Your task to perform on an android device: turn on showing notifications on the lock screen Image 0: 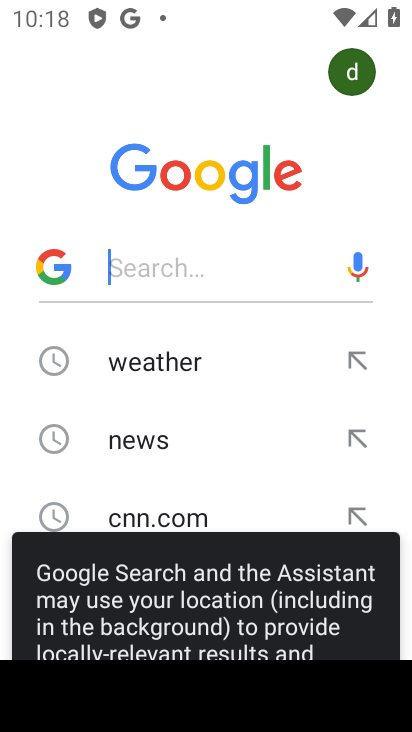
Step 0: press back button
Your task to perform on an android device: turn on showing notifications on the lock screen Image 1: 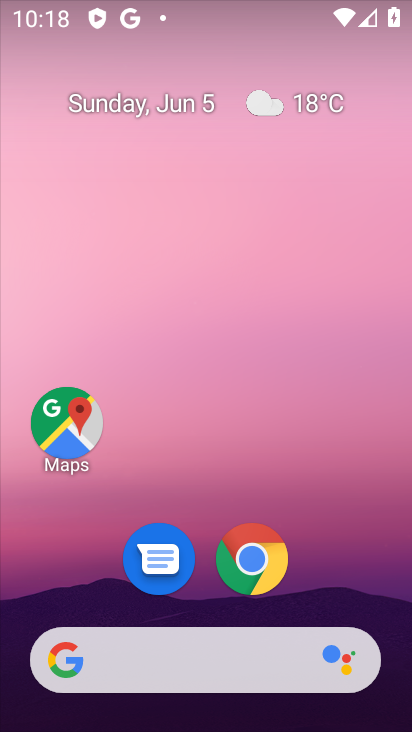
Step 1: drag from (392, 712) to (402, 135)
Your task to perform on an android device: turn on showing notifications on the lock screen Image 2: 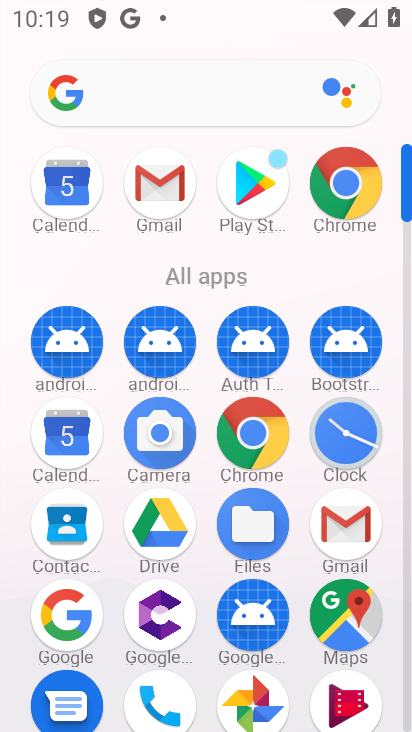
Step 2: drag from (206, 631) to (246, 251)
Your task to perform on an android device: turn on showing notifications on the lock screen Image 3: 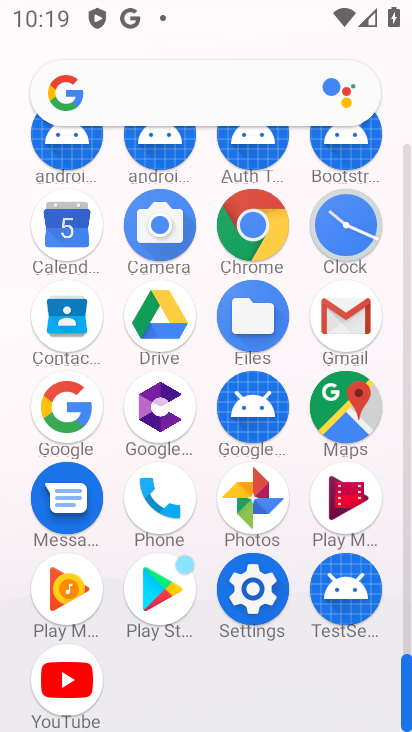
Step 3: click (254, 587)
Your task to perform on an android device: turn on showing notifications on the lock screen Image 4: 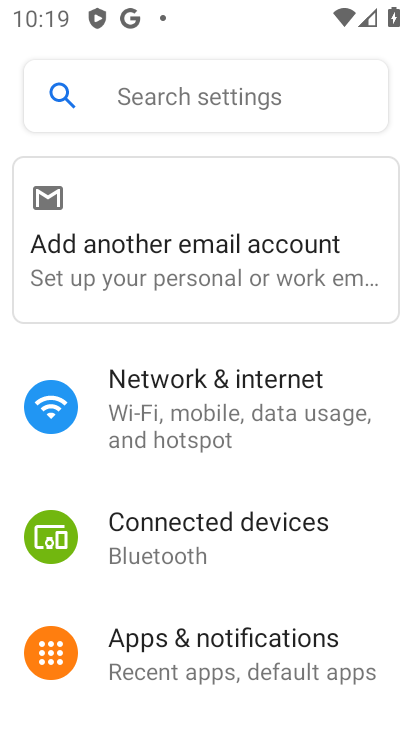
Step 4: drag from (256, 637) to (273, 323)
Your task to perform on an android device: turn on showing notifications on the lock screen Image 5: 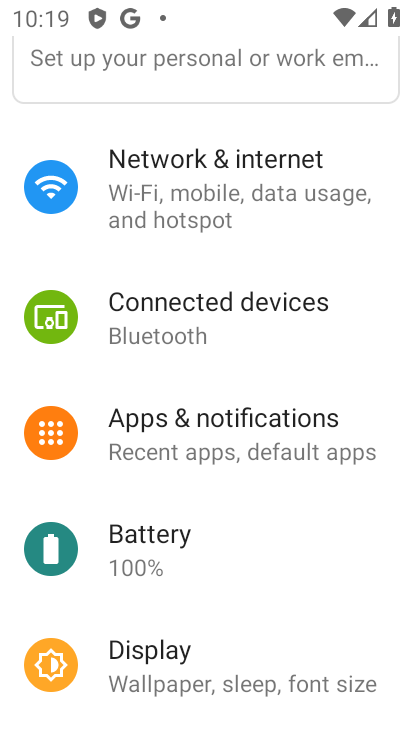
Step 5: click (217, 423)
Your task to perform on an android device: turn on showing notifications on the lock screen Image 6: 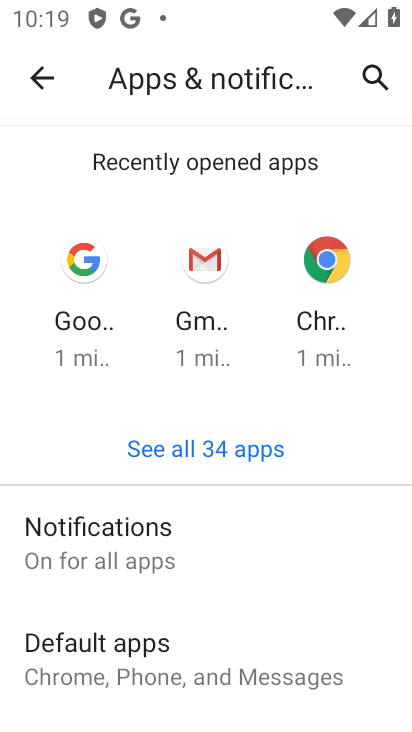
Step 6: drag from (254, 524) to (270, 268)
Your task to perform on an android device: turn on showing notifications on the lock screen Image 7: 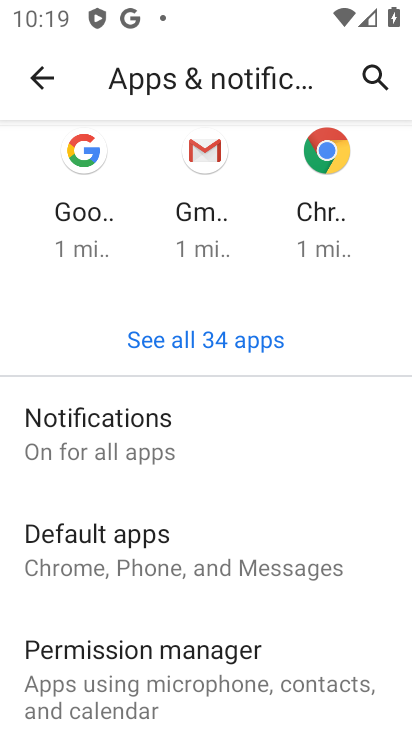
Step 7: click (108, 436)
Your task to perform on an android device: turn on showing notifications on the lock screen Image 8: 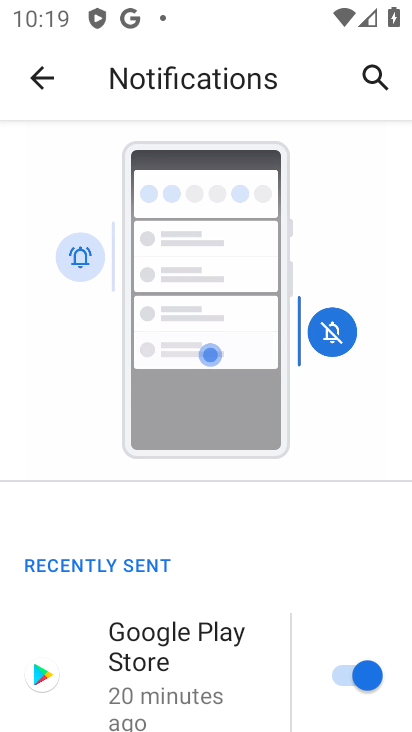
Step 8: drag from (242, 613) to (250, 227)
Your task to perform on an android device: turn on showing notifications on the lock screen Image 9: 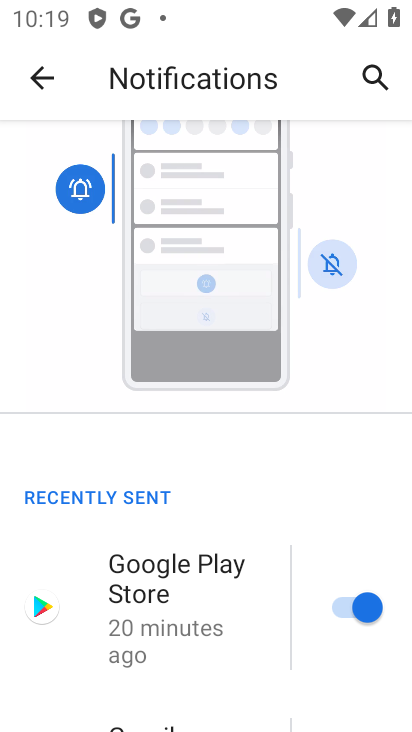
Step 9: drag from (264, 687) to (286, 176)
Your task to perform on an android device: turn on showing notifications on the lock screen Image 10: 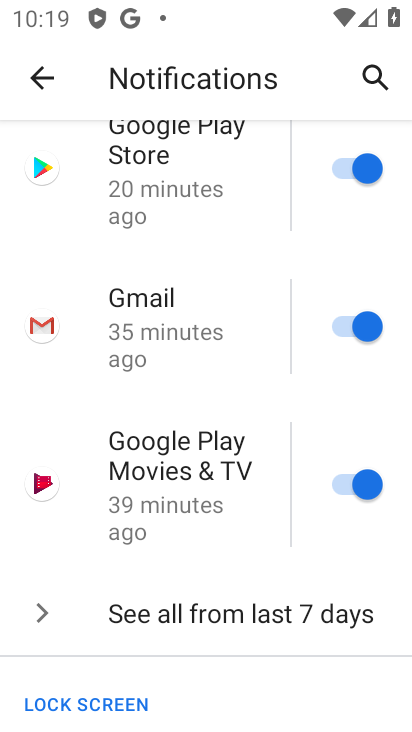
Step 10: drag from (245, 678) to (247, 305)
Your task to perform on an android device: turn on showing notifications on the lock screen Image 11: 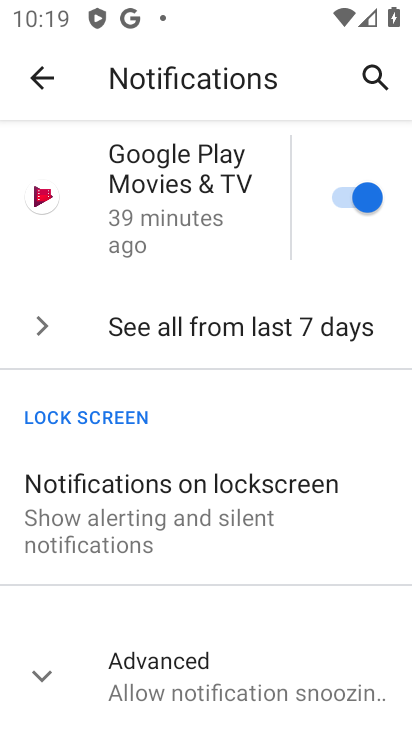
Step 11: click (147, 490)
Your task to perform on an android device: turn on showing notifications on the lock screen Image 12: 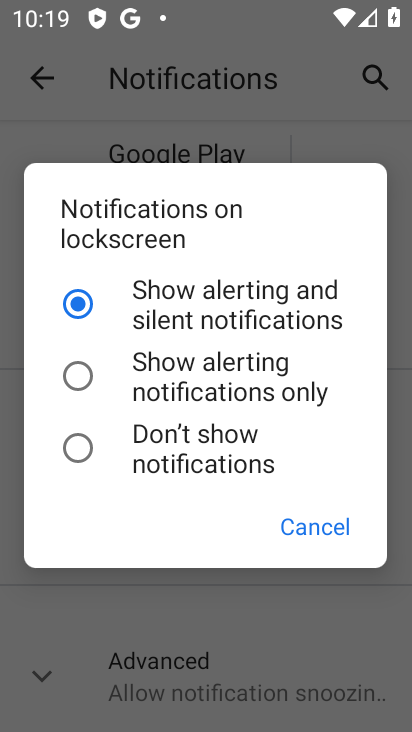
Step 12: task complete